Your task to perform on an android device: find photos in the google photos app Image 0: 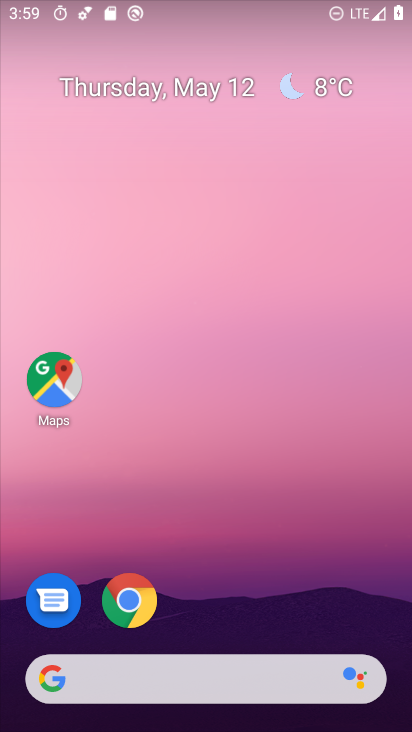
Step 0: drag from (214, 718) to (220, 135)
Your task to perform on an android device: find photos in the google photos app Image 1: 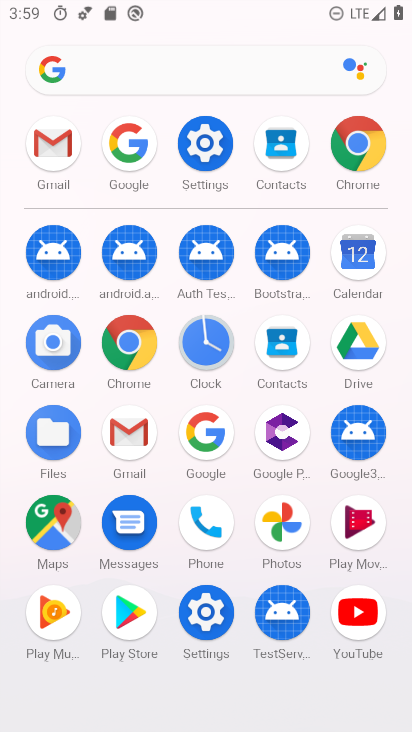
Step 1: click (283, 521)
Your task to perform on an android device: find photos in the google photos app Image 2: 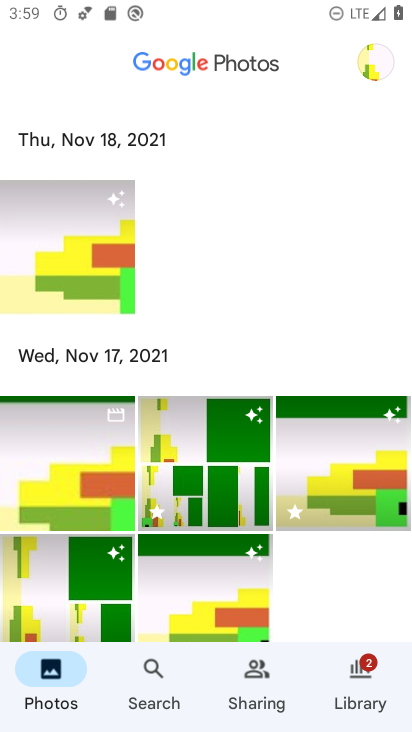
Step 2: click (74, 258)
Your task to perform on an android device: find photos in the google photos app Image 3: 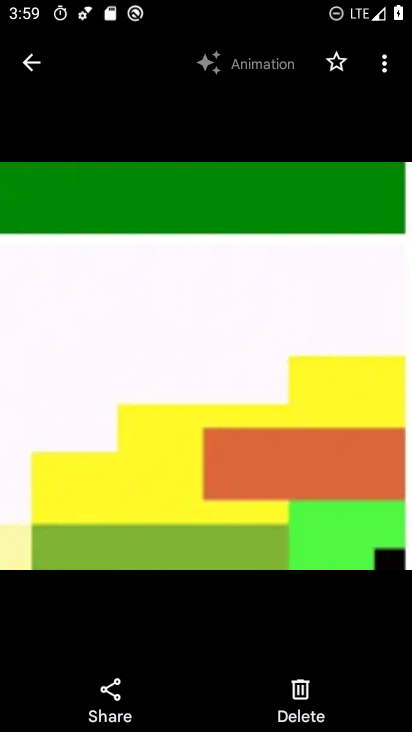
Step 3: task complete